Your task to perform on an android device: Go to Wikipedia Image 0: 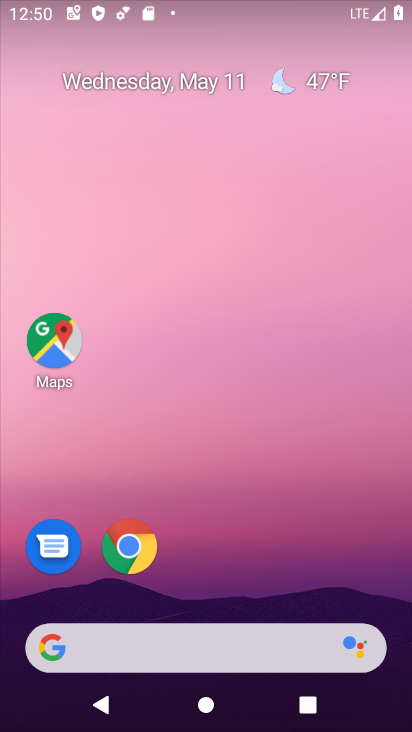
Step 0: click (127, 549)
Your task to perform on an android device: Go to Wikipedia Image 1: 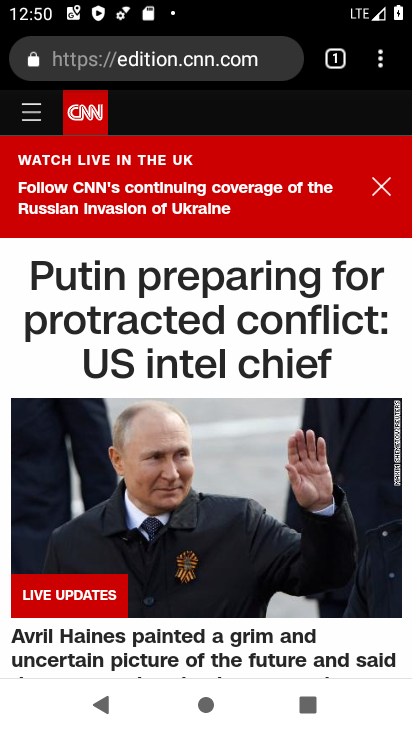
Step 1: drag from (384, 64) to (348, 126)
Your task to perform on an android device: Go to Wikipedia Image 2: 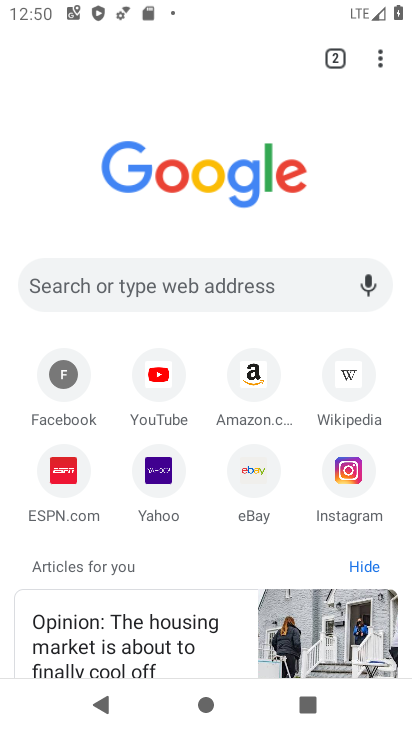
Step 2: click (354, 384)
Your task to perform on an android device: Go to Wikipedia Image 3: 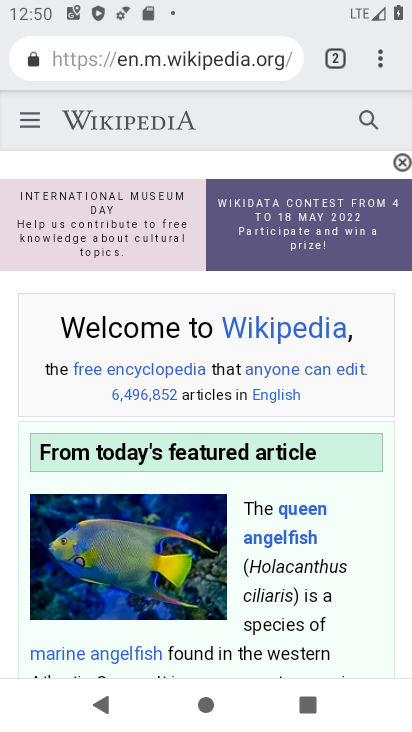
Step 3: task complete